Your task to perform on an android device: Show me popular videos on Youtube Image 0: 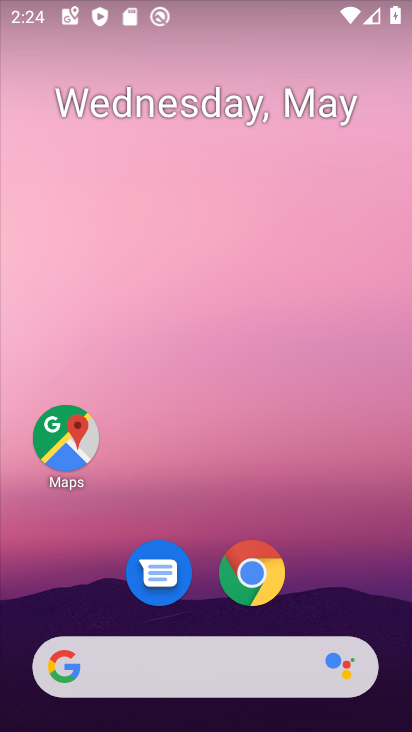
Step 0: drag from (316, 573) to (409, 600)
Your task to perform on an android device: Show me popular videos on Youtube Image 1: 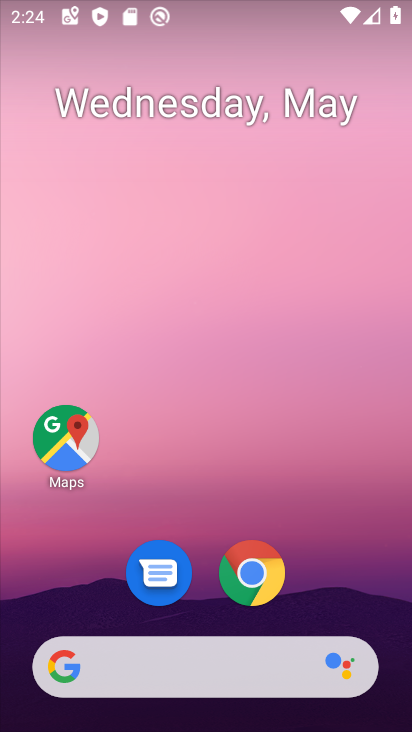
Step 1: drag from (302, 600) to (410, 87)
Your task to perform on an android device: Show me popular videos on Youtube Image 2: 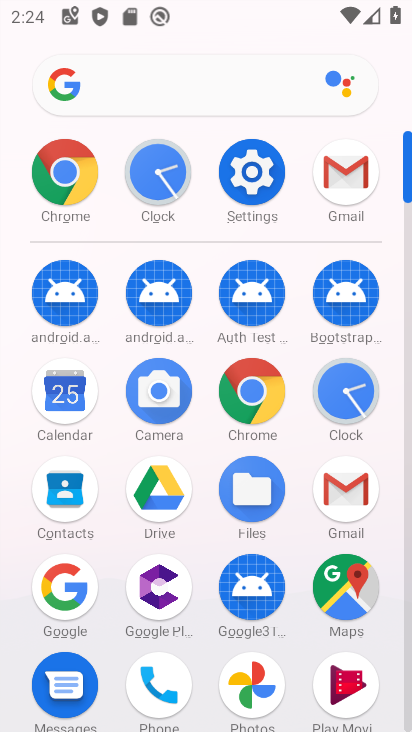
Step 2: drag from (290, 454) to (376, 10)
Your task to perform on an android device: Show me popular videos on Youtube Image 3: 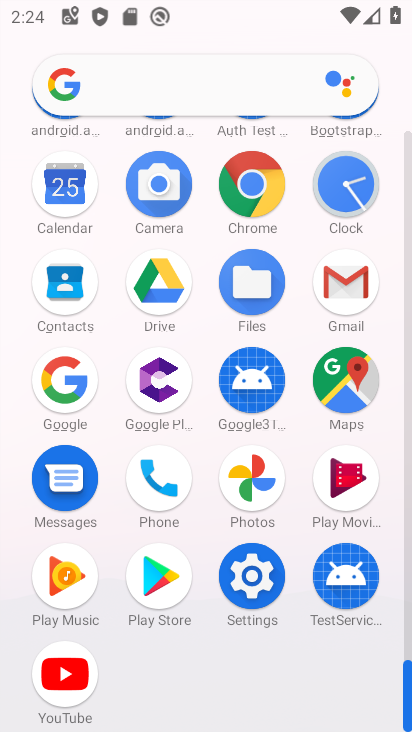
Step 3: click (56, 668)
Your task to perform on an android device: Show me popular videos on Youtube Image 4: 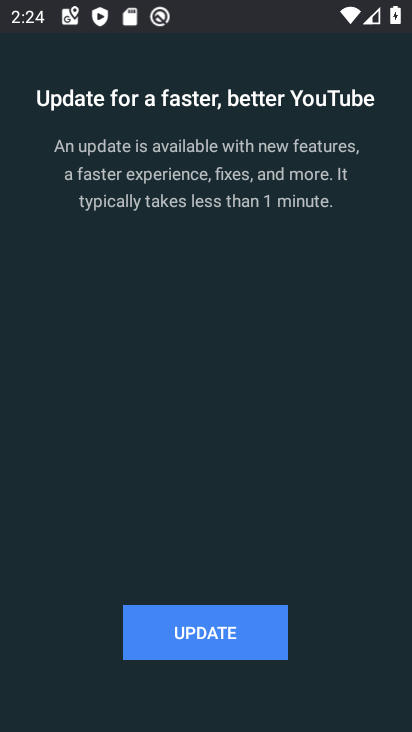
Step 4: click (230, 631)
Your task to perform on an android device: Show me popular videos on Youtube Image 5: 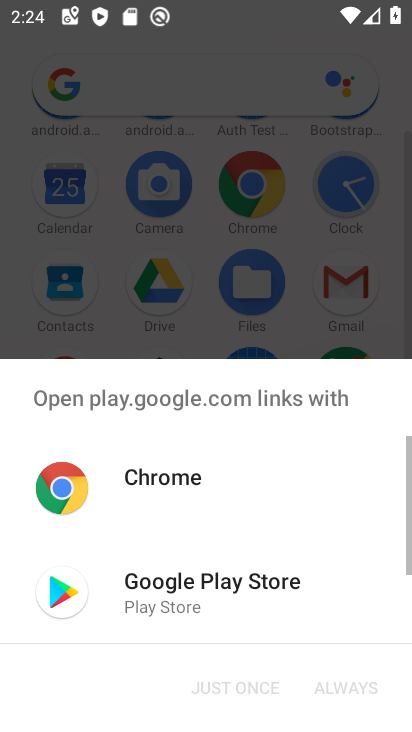
Step 5: click (136, 603)
Your task to perform on an android device: Show me popular videos on Youtube Image 6: 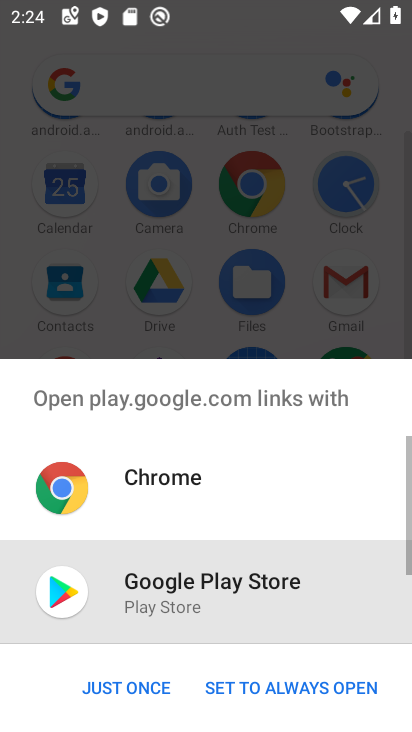
Step 6: click (105, 691)
Your task to perform on an android device: Show me popular videos on Youtube Image 7: 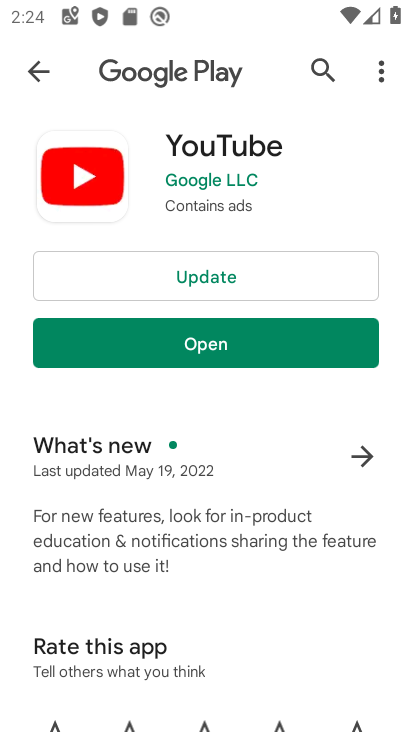
Step 7: click (218, 269)
Your task to perform on an android device: Show me popular videos on Youtube Image 8: 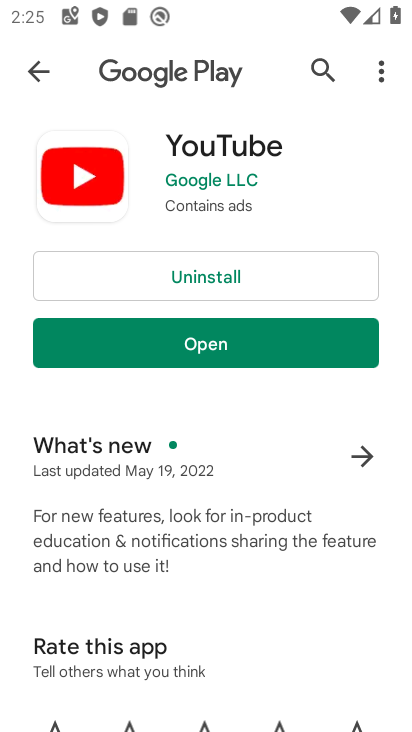
Step 8: click (210, 359)
Your task to perform on an android device: Show me popular videos on Youtube Image 9: 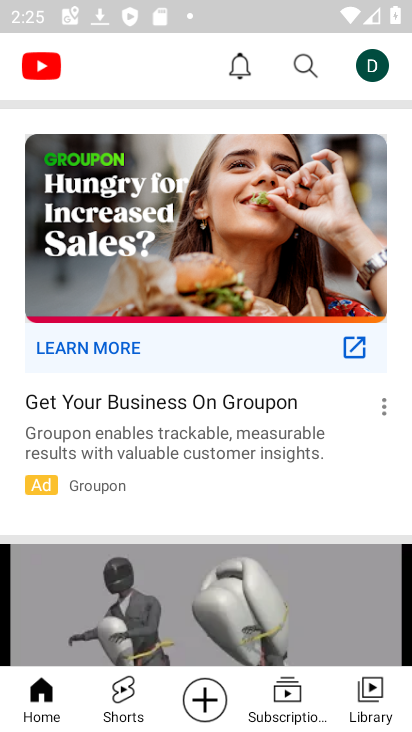
Step 9: drag from (103, 308) to (119, 555)
Your task to perform on an android device: Show me popular videos on Youtube Image 10: 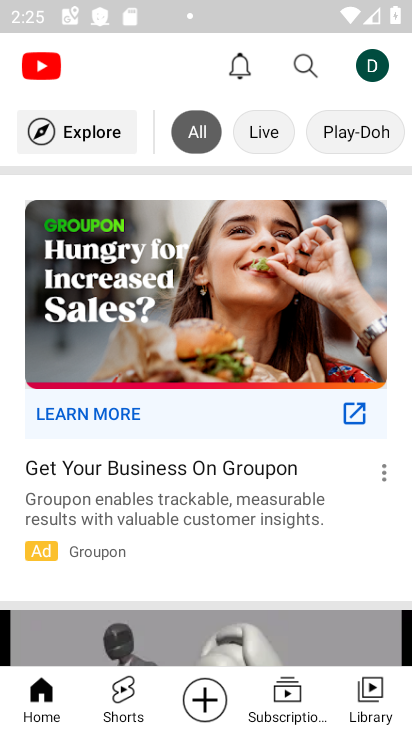
Step 10: click (95, 137)
Your task to perform on an android device: Show me popular videos on Youtube Image 11: 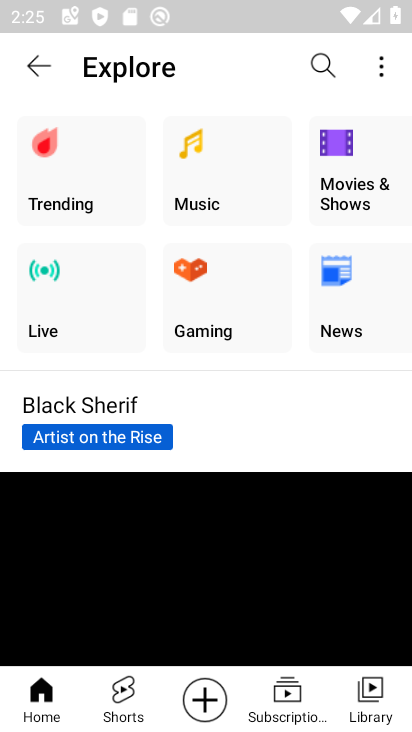
Step 11: click (87, 179)
Your task to perform on an android device: Show me popular videos on Youtube Image 12: 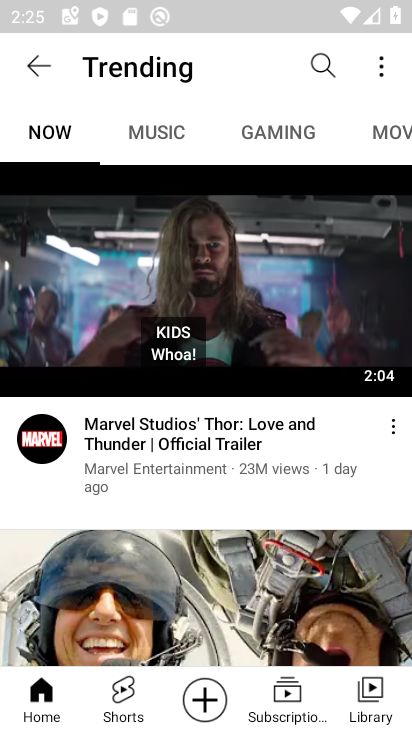
Step 12: task complete